Your task to perform on an android device: Search for vegetarian restaurants on Maps Image 0: 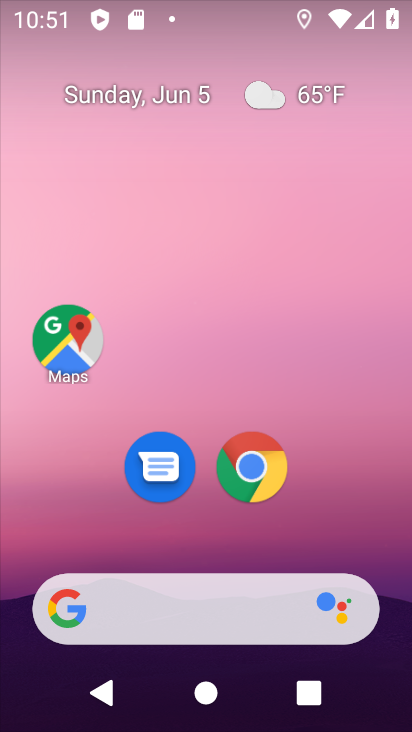
Step 0: press home button
Your task to perform on an android device: Search for vegetarian restaurants on Maps Image 1: 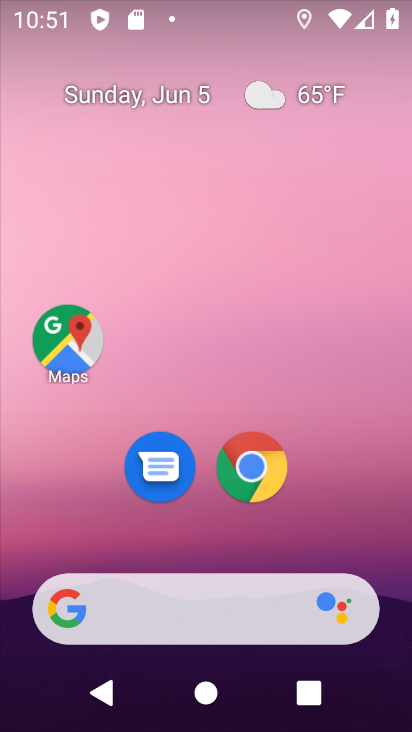
Step 1: drag from (289, 544) to (313, 72)
Your task to perform on an android device: Search for vegetarian restaurants on Maps Image 2: 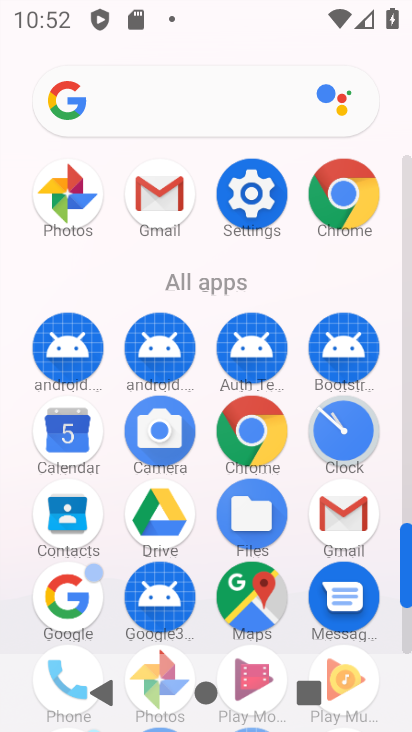
Step 2: click (245, 624)
Your task to perform on an android device: Search for vegetarian restaurants on Maps Image 3: 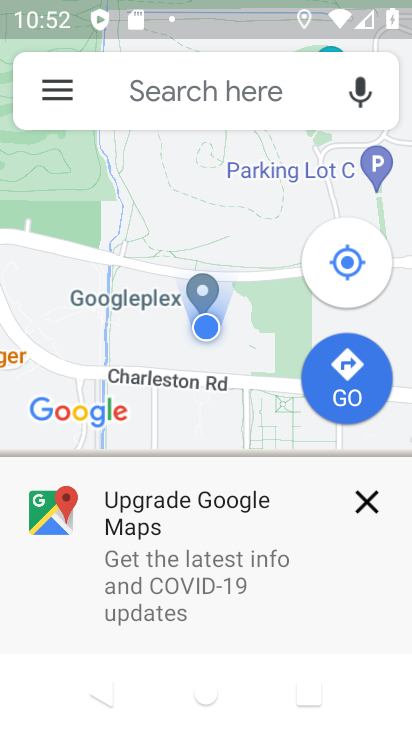
Step 3: click (202, 112)
Your task to perform on an android device: Search for vegetarian restaurants on Maps Image 4: 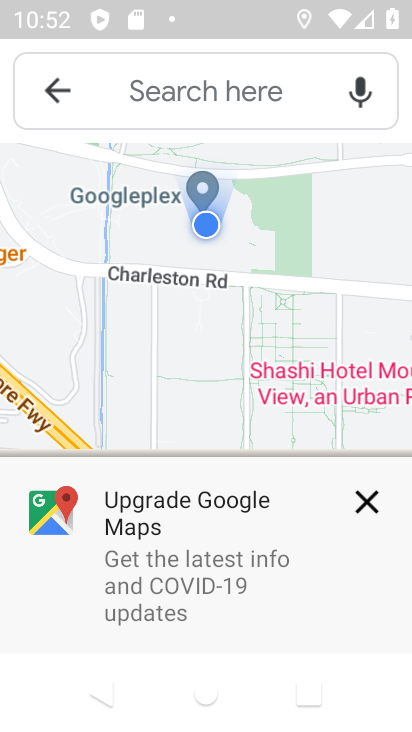
Step 4: click (198, 112)
Your task to perform on an android device: Search for vegetarian restaurants on Maps Image 5: 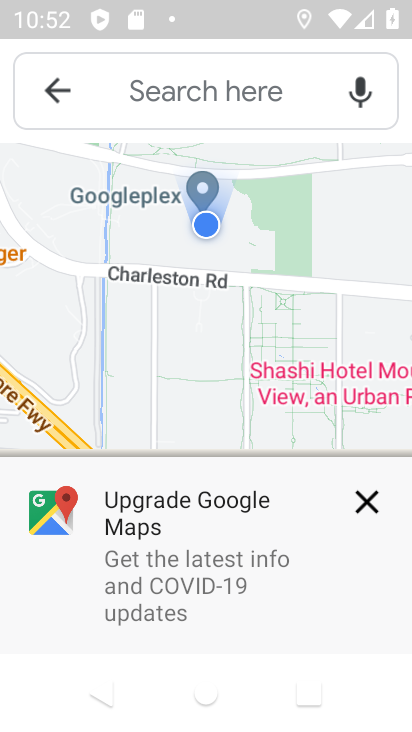
Step 5: click (198, 112)
Your task to perform on an android device: Search for vegetarian restaurants on Maps Image 6: 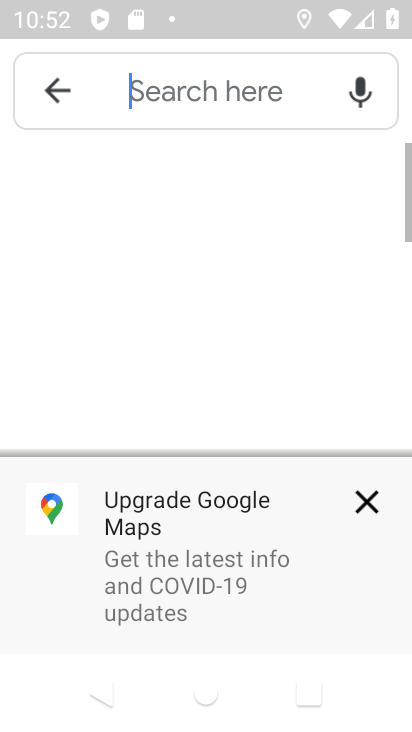
Step 6: click (198, 112)
Your task to perform on an android device: Search for vegetarian restaurants on Maps Image 7: 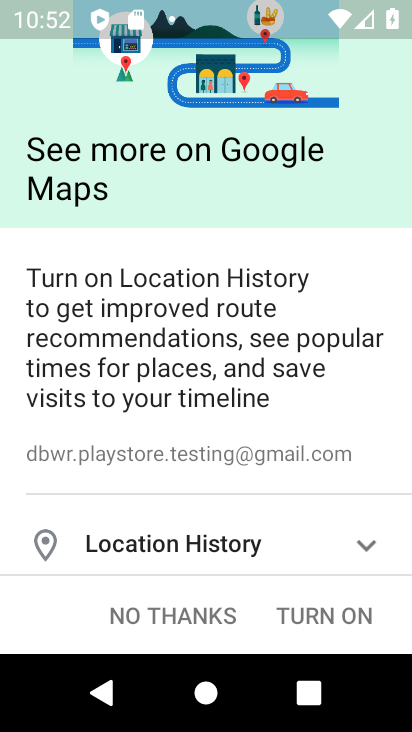
Step 7: press back button
Your task to perform on an android device: Search for vegetarian restaurants on Maps Image 8: 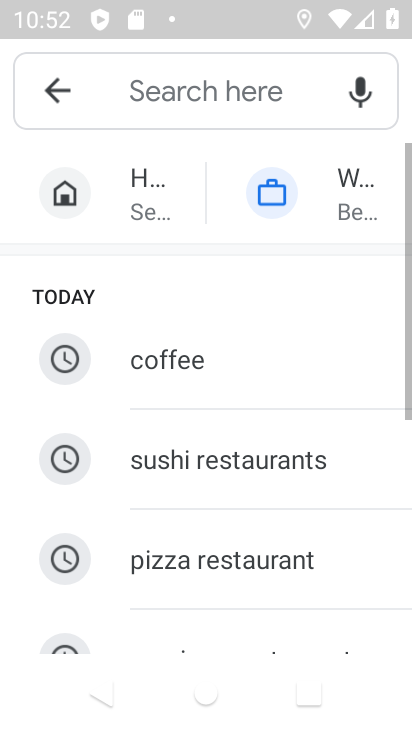
Step 8: click (192, 95)
Your task to perform on an android device: Search for vegetarian restaurants on Maps Image 9: 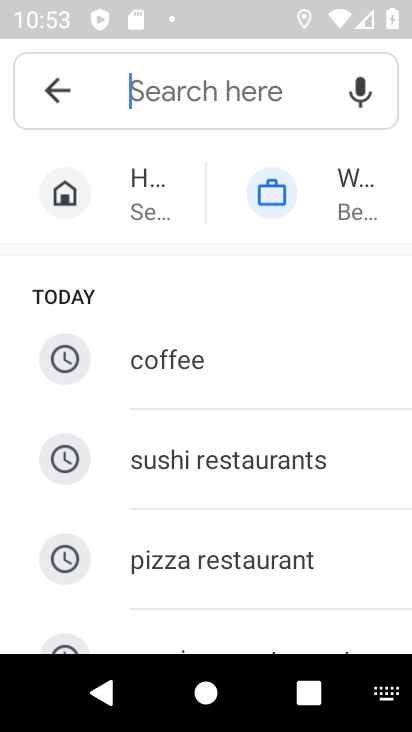
Step 9: type "vegetarian restaurants"
Your task to perform on an android device: Search for vegetarian restaurants on Maps Image 10: 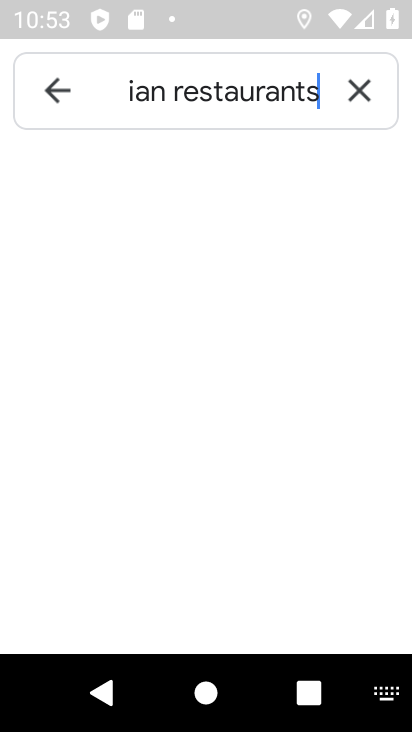
Step 10: type ""
Your task to perform on an android device: Search for vegetarian restaurants on Maps Image 11: 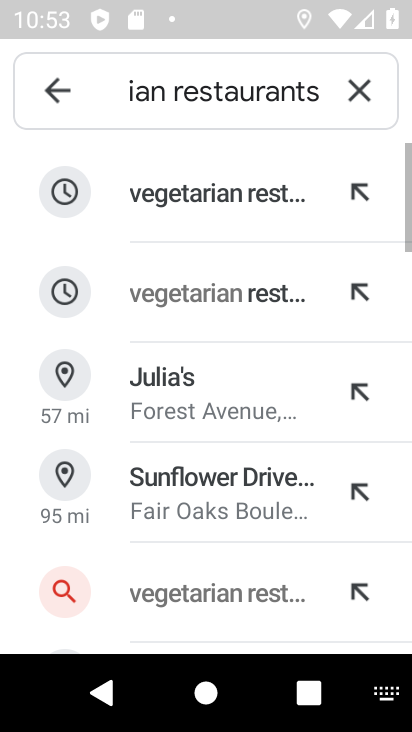
Step 11: click (212, 186)
Your task to perform on an android device: Search for vegetarian restaurants on Maps Image 12: 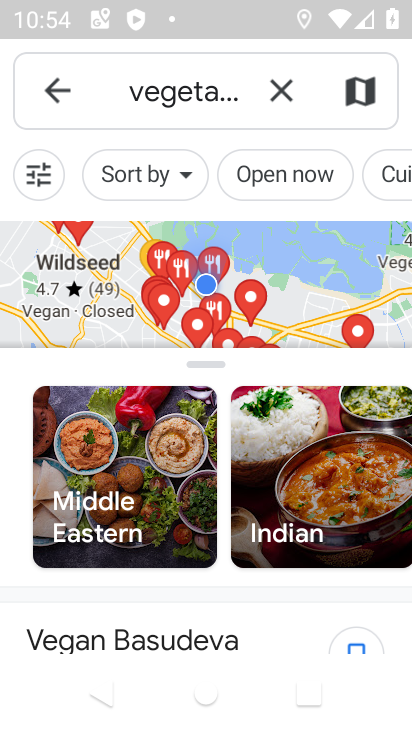
Step 12: task complete